Your task to perform on an android device: Open location settings Image 0: 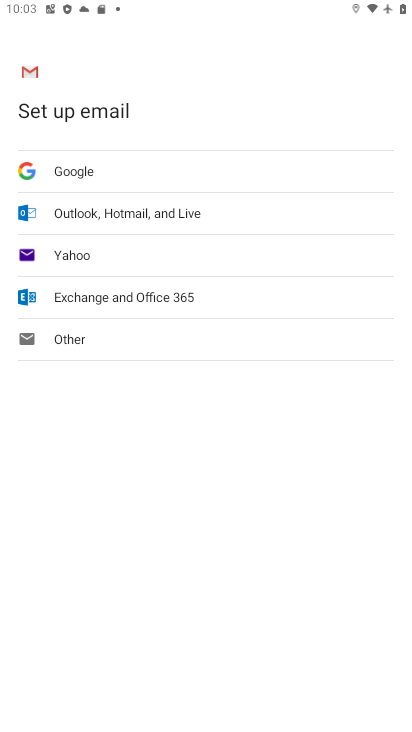
Step 0: press home button
Your task to perform on an android device: Open location settings Image 1: 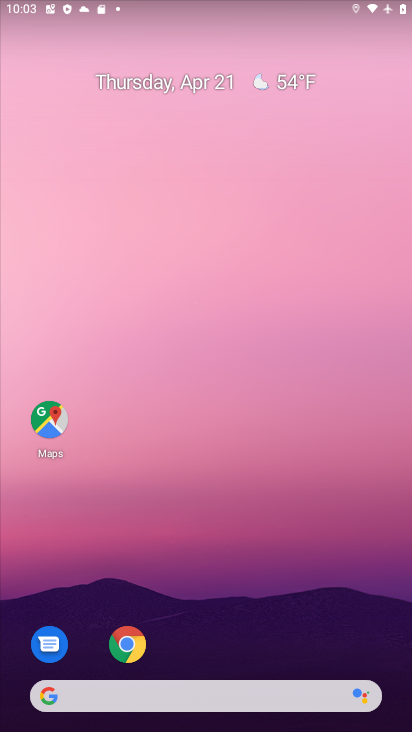
Step 1: drag from (180, 616) to (180, 109)
Your task to perform on an android device: Open location settings Image 2: 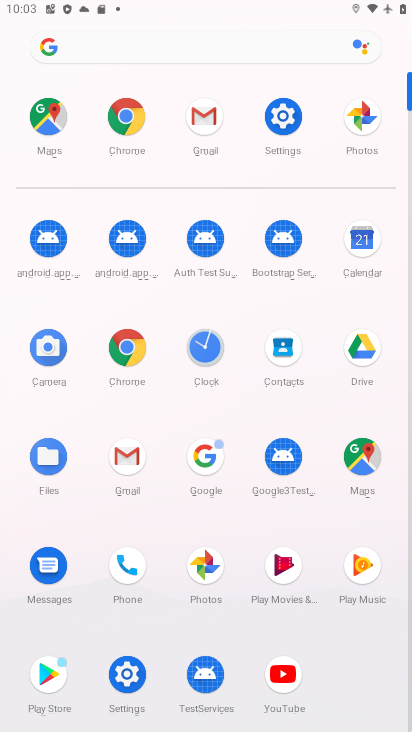
Step 2: click (294, 116)
Your task to perform on an android device: Open location settings Image 3: 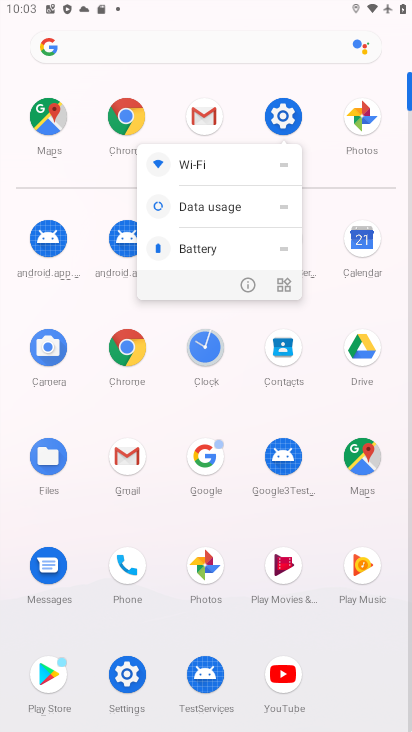
Step 3: click (279, 117)
Your task to perform on an android device: Open location settings Image 4: 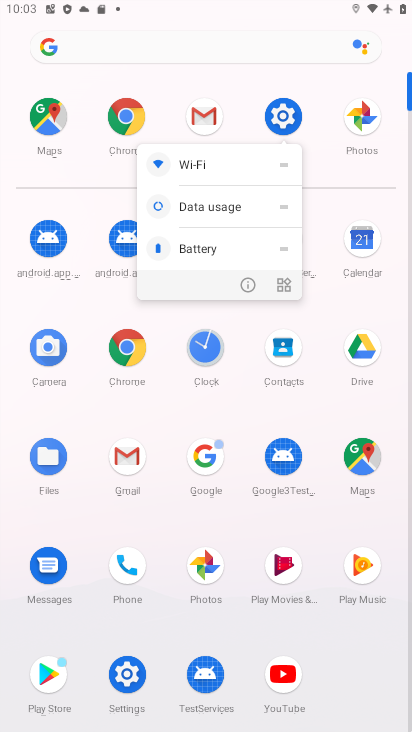
Step 4: click (279, 117)
Your task to perform on an android device: Open location settings Image 5: 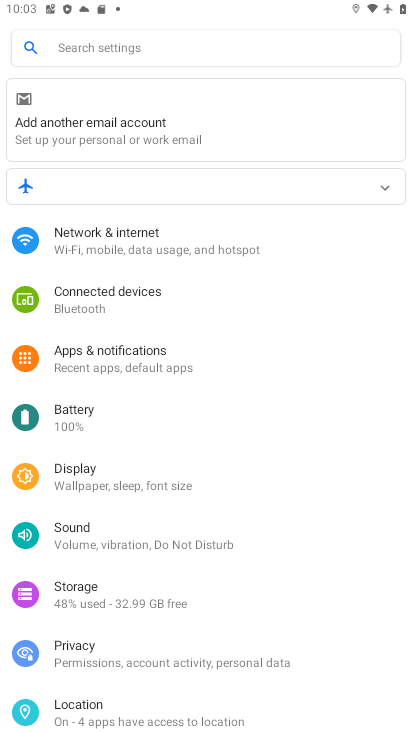
Step 5: click (121, 712)
Your task to perform on an android device: Open location settings Image 6: 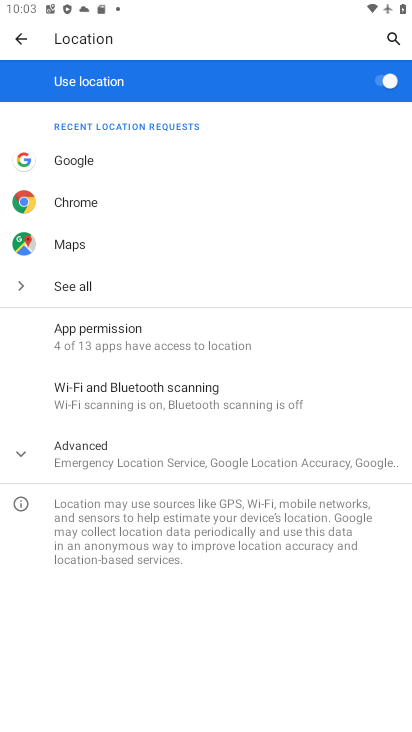
Step 6: task complete